Your task to perform on an android device: Go to internet settings Image 0: 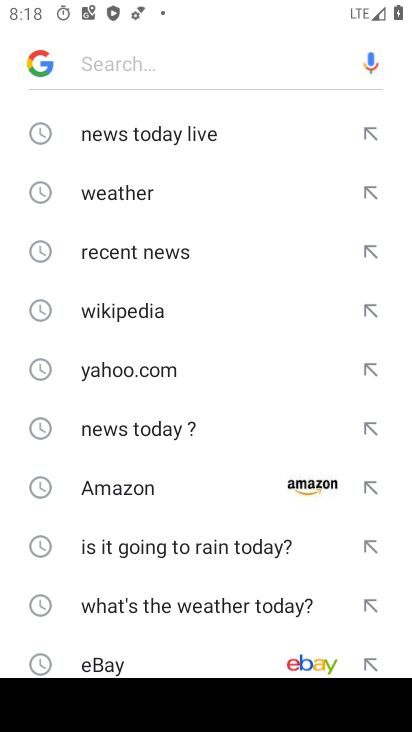
Step 0: press home button
Your task to perform on an android device: Go to internet settings Image 1: 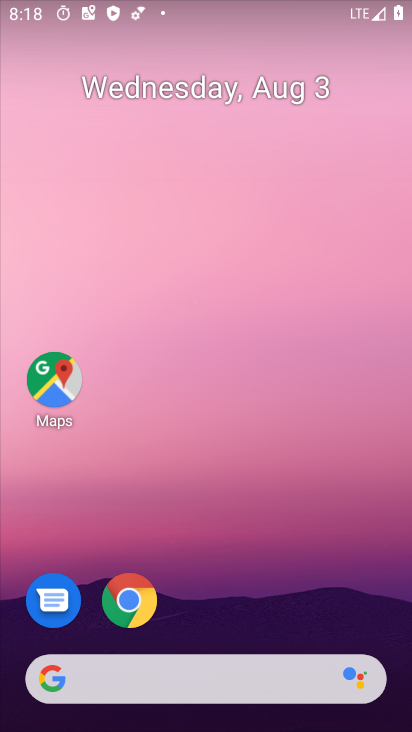
Step 1: drag from (212, 615) to (195, 13)
Your task to perform on an android device: Go to internet settings Image 2: 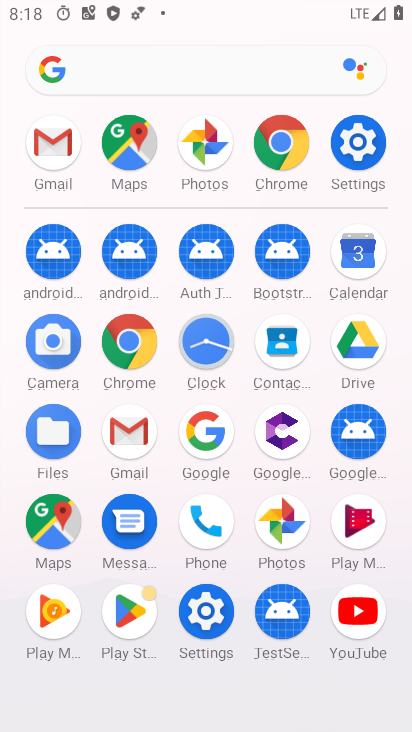
Step 2: click (200, 605)
Your task to perform on an android device: Go to internet settings Image 3: 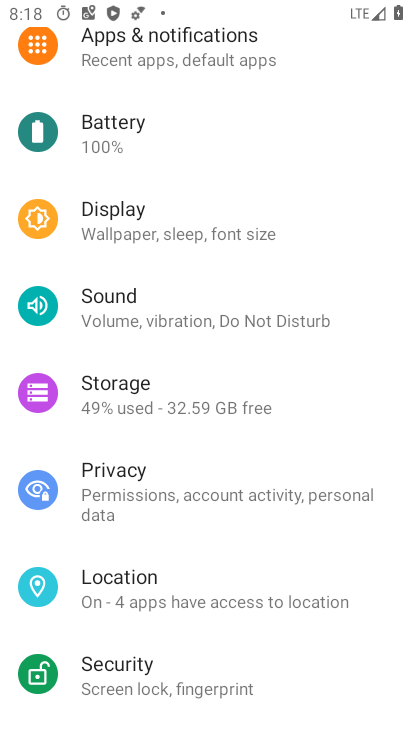
Step 3: drag from (166, 124) to (183, 680)
Your task to perform on an android device: Go to internet settings Image 4: 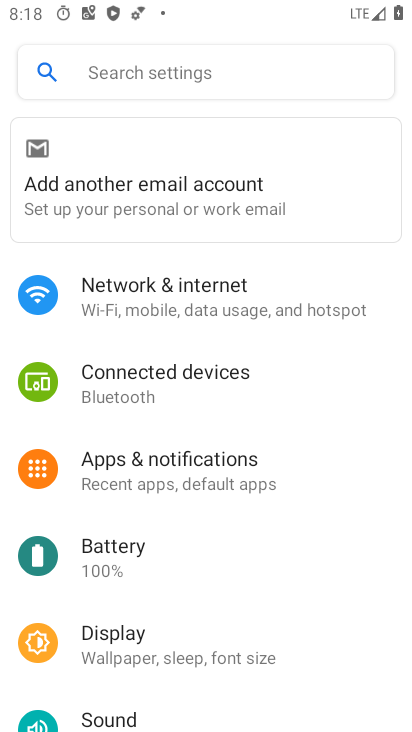
Step 4: click (163, 307)
Your task to perform on an android device: Go to internet settings Image 5: 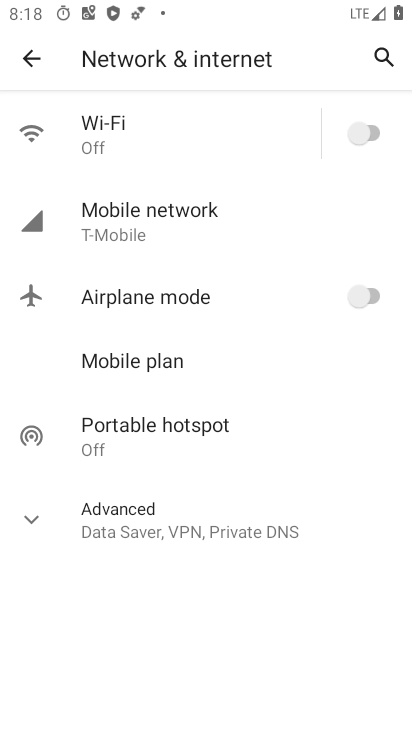
Step 5: task complete